Your task to perform on an android device: change the clock display to digital Image 0: 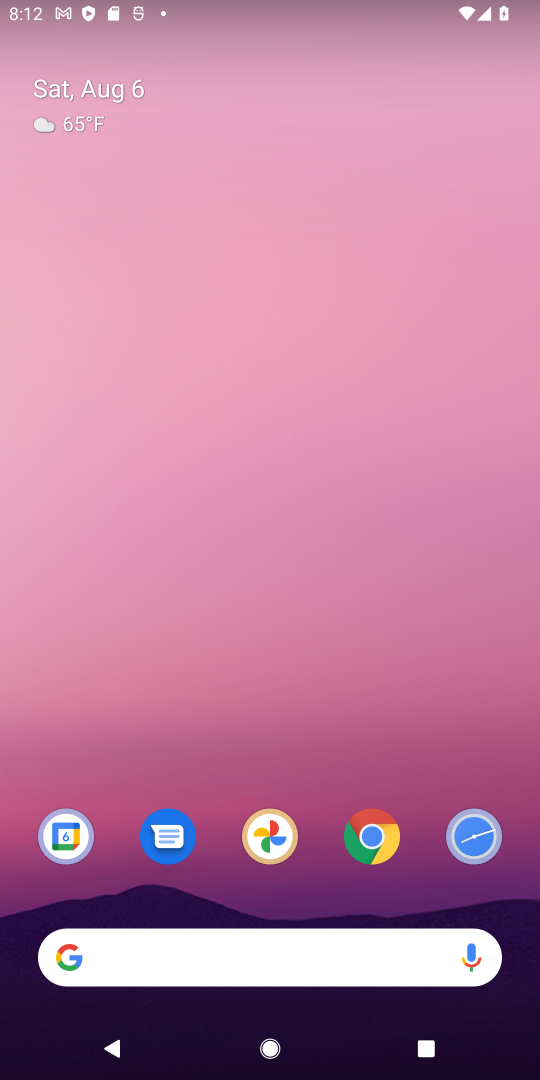
Step 0: drag from (458, 891) to (303, 124)
Your task to perform on an android device: change the clock display to digital Image 1: 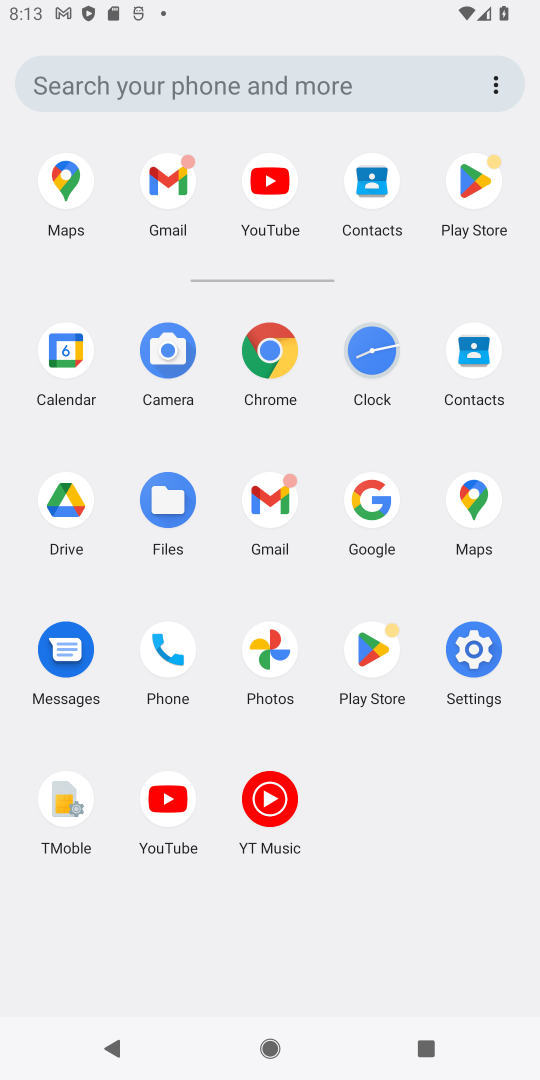
Step 1: click (372, 341)
Your task to perform on an android device: change the clock display to digital Image 2: 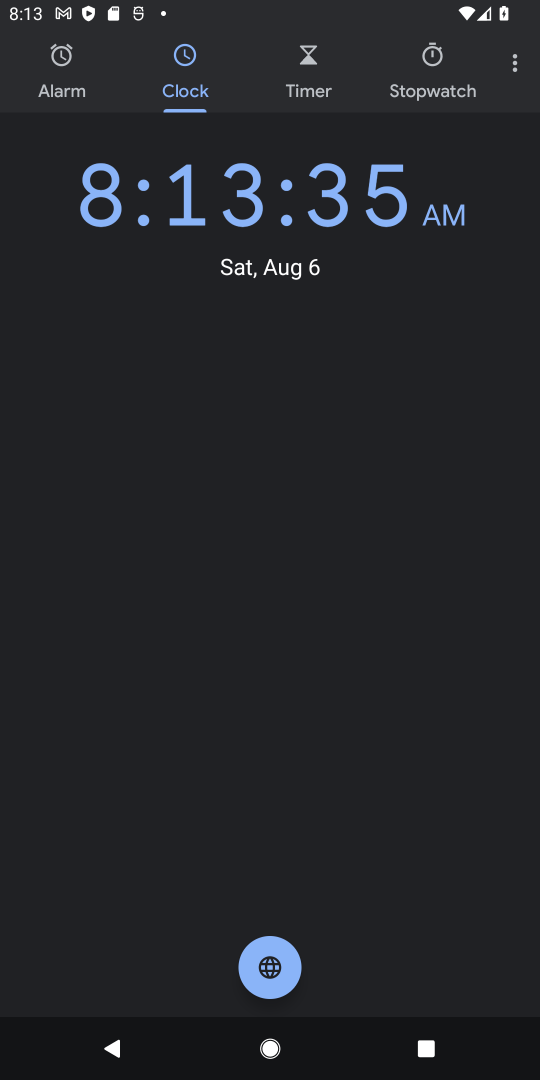
Step 2: click (515, 50)
Your task to perform on an android device: change the clock display to digital Image 3: 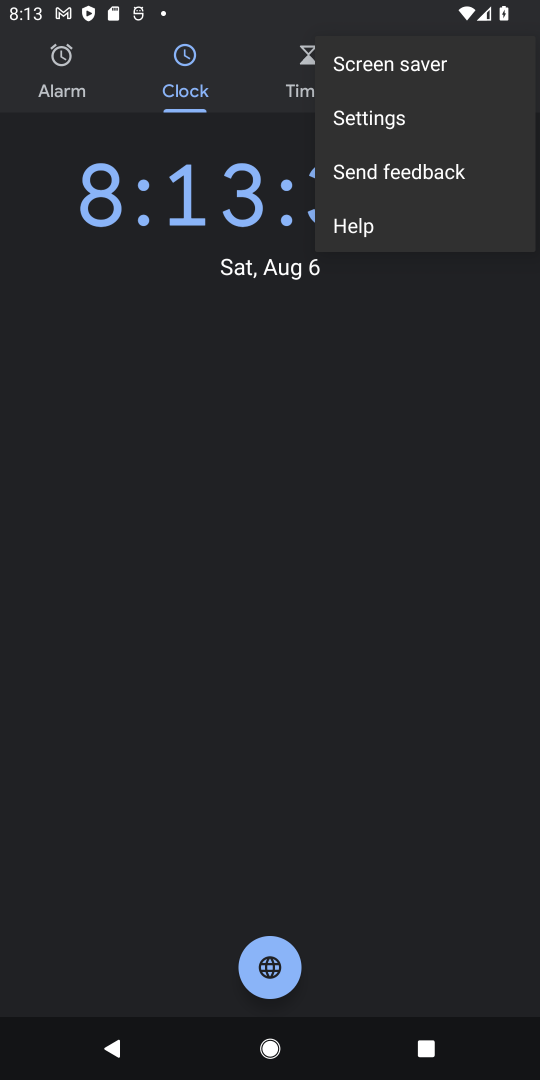
Step 3: click (357, 121)
Your task to perform on an android device: change the clock display to digital Image 4: 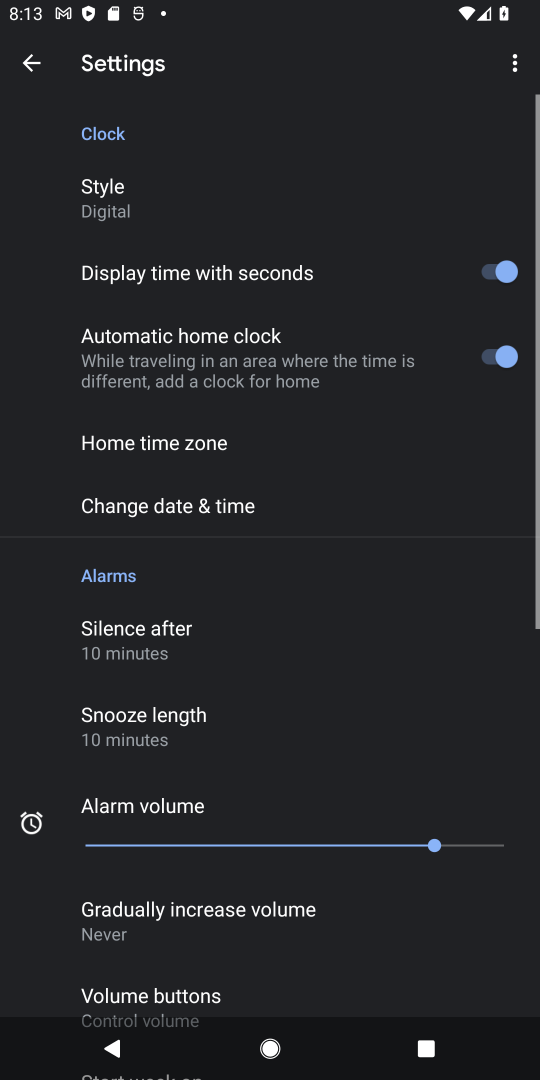
Step 4: click (187, 184)
Your task to perform on an android device: change the clock display to digital Image 5: 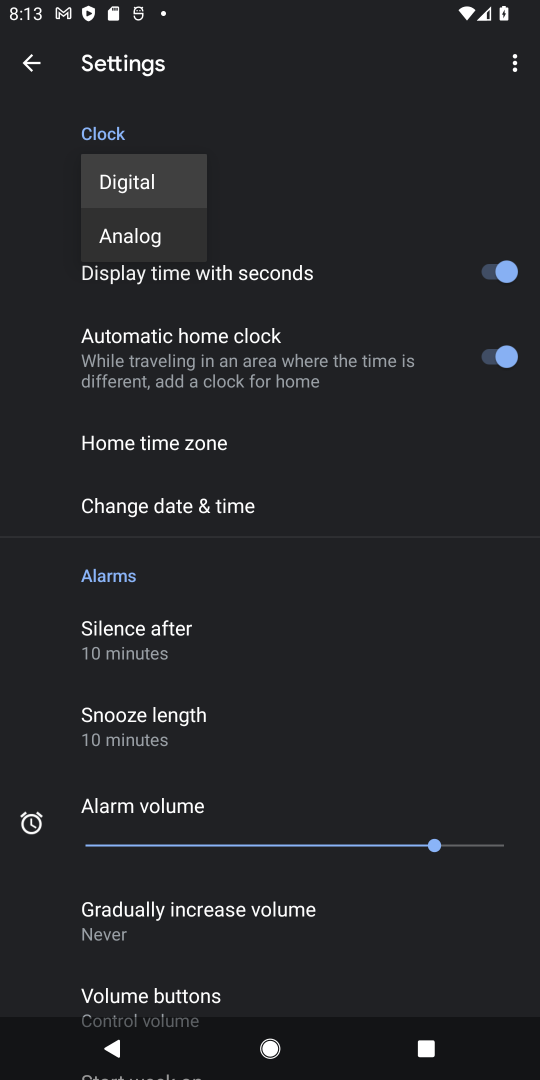
Step 5: click (149, 168)
Your task to perform on an android device: change the clock display to digital Image 6: 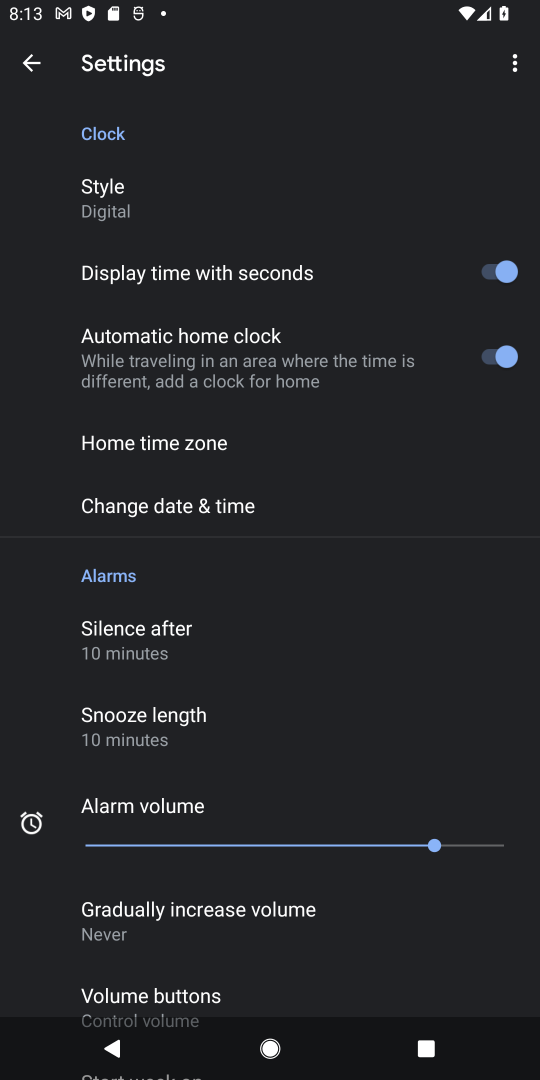
Step 6: task complete